Your task to perform on an android device: What's the weather going to be this weekend? Image 0: 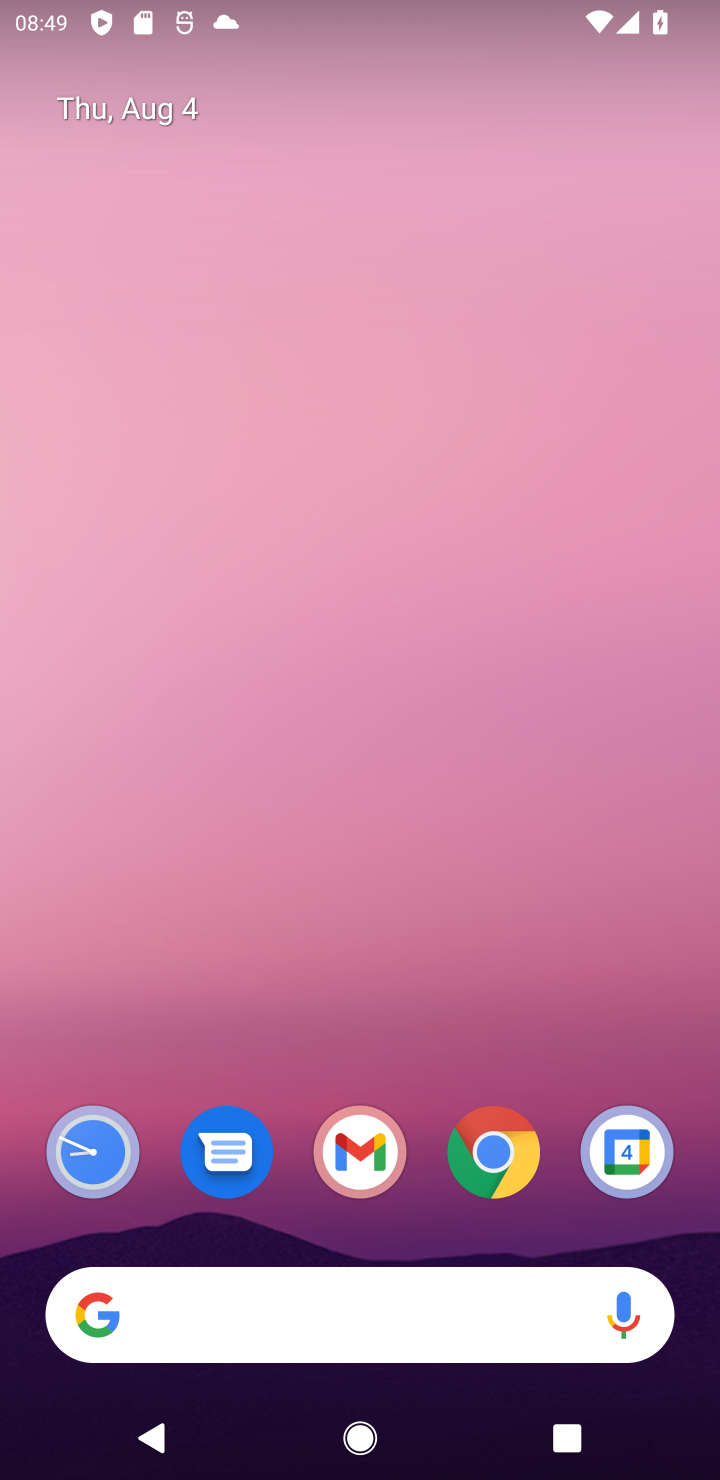
Step 0: click (288, 1305)
Your task to perform on an android device: What's the weather going to be this weekend? Image 1: 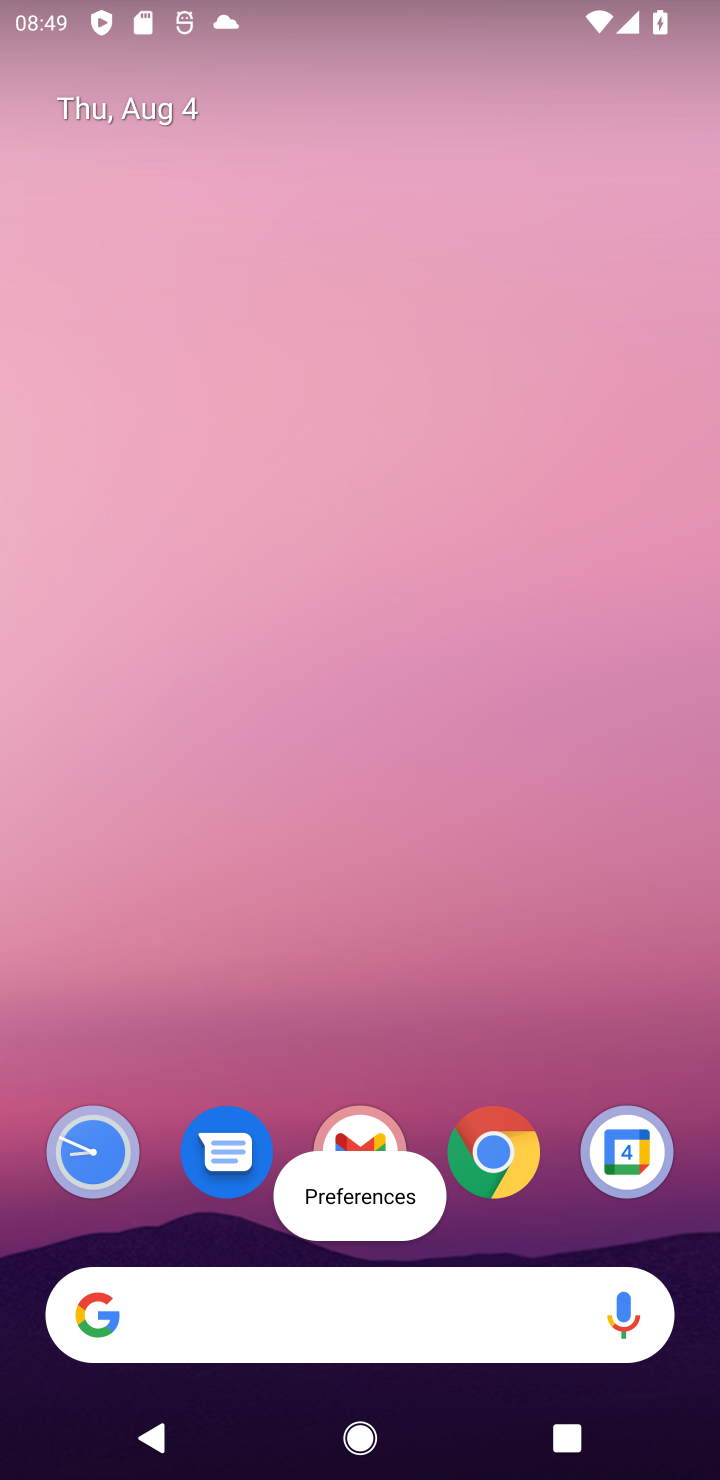
Step 1: click (219, 1295)
Your task to perform on an android device: What's the weather going to be this weekend? Image 2: 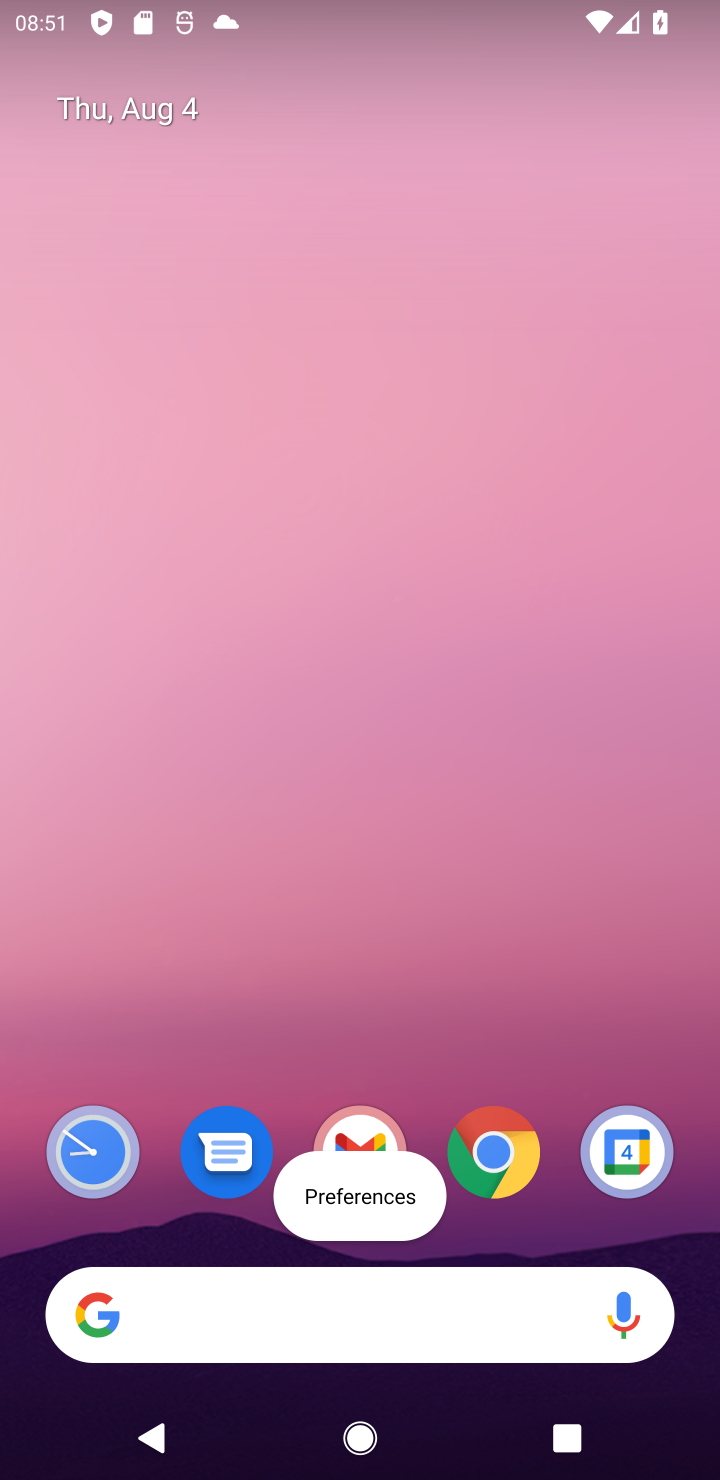
Step 2: click (211, 1289)
Your task to perform on an android device: What's the weather going to be this weekend? Image 3: 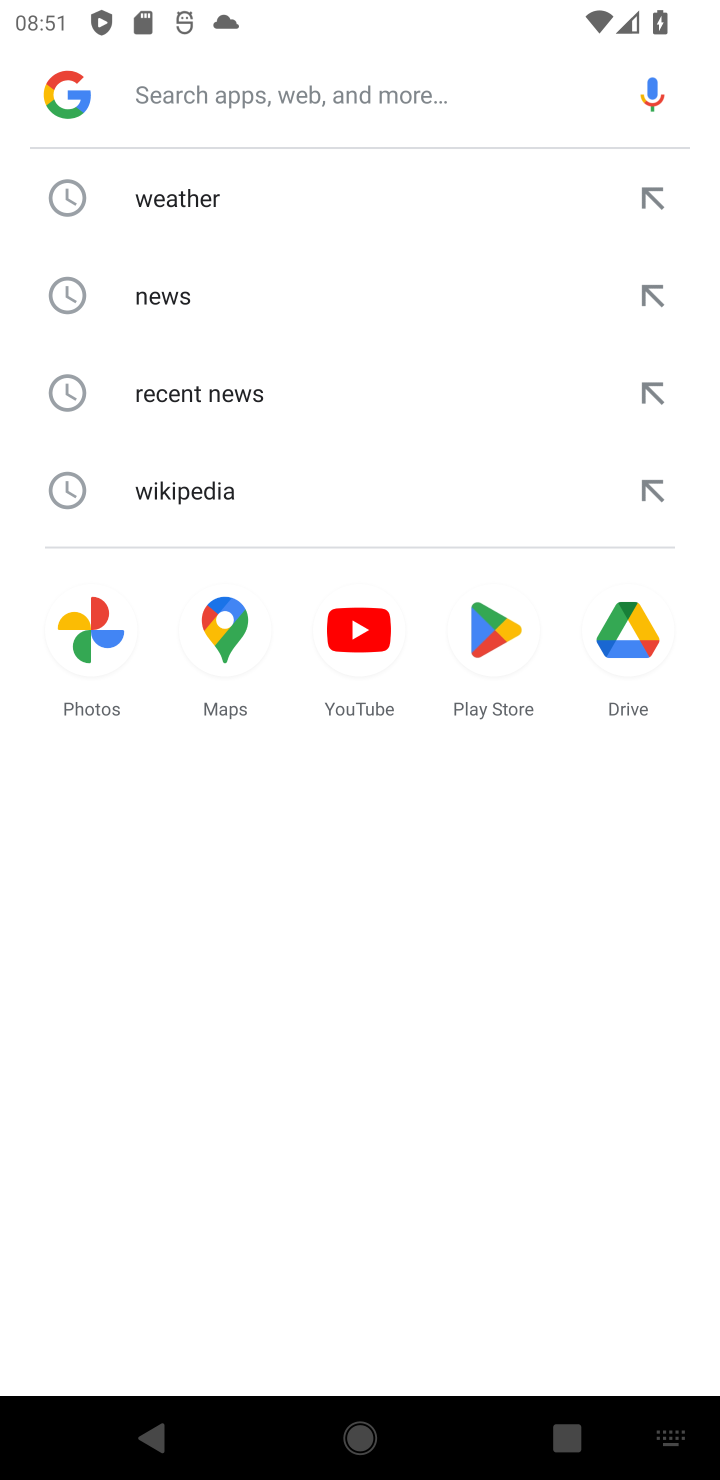
Step 3: click (217, 193)
Your task to perform on an android device: What's the weather going to be this weekend? Image 4: 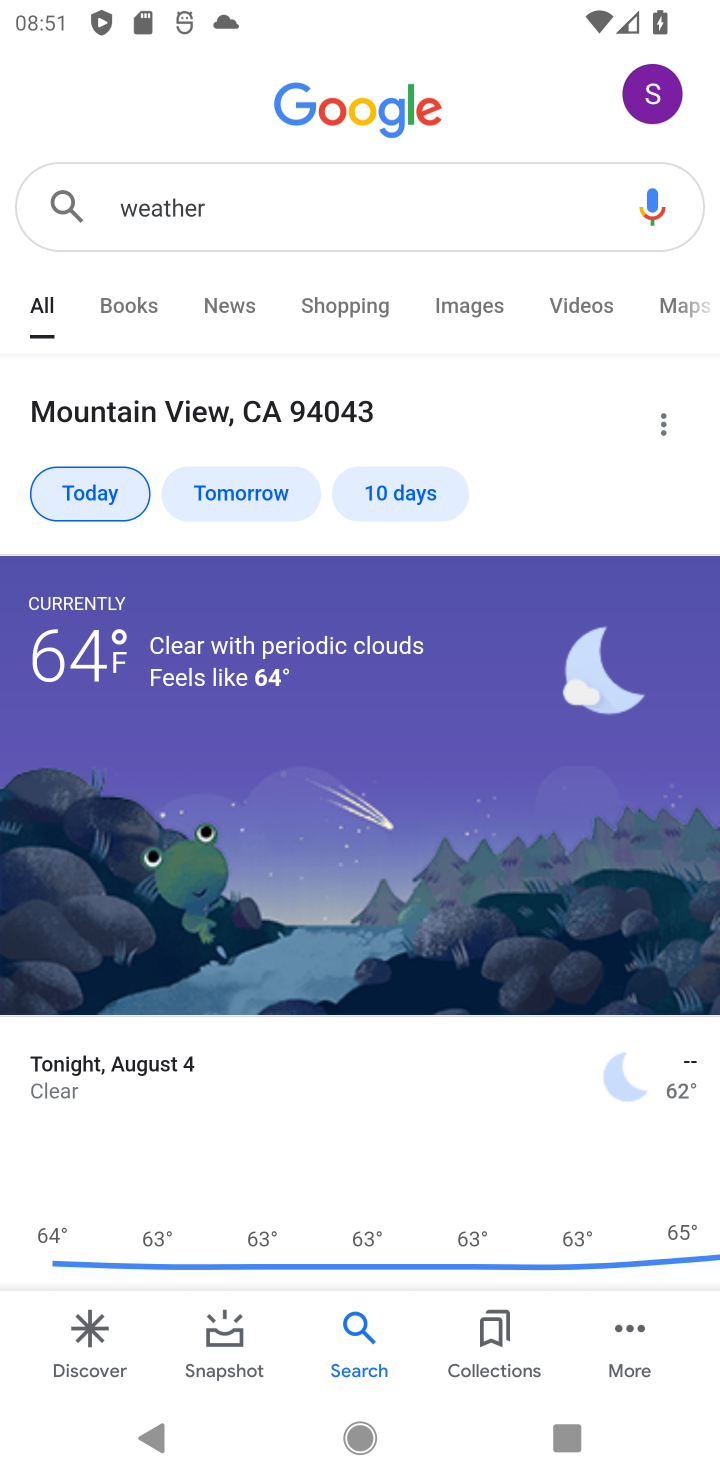
Step 4: click (367, 483)
Your task to perform on an android device: What's the weather going to be this weekend? Image 5: 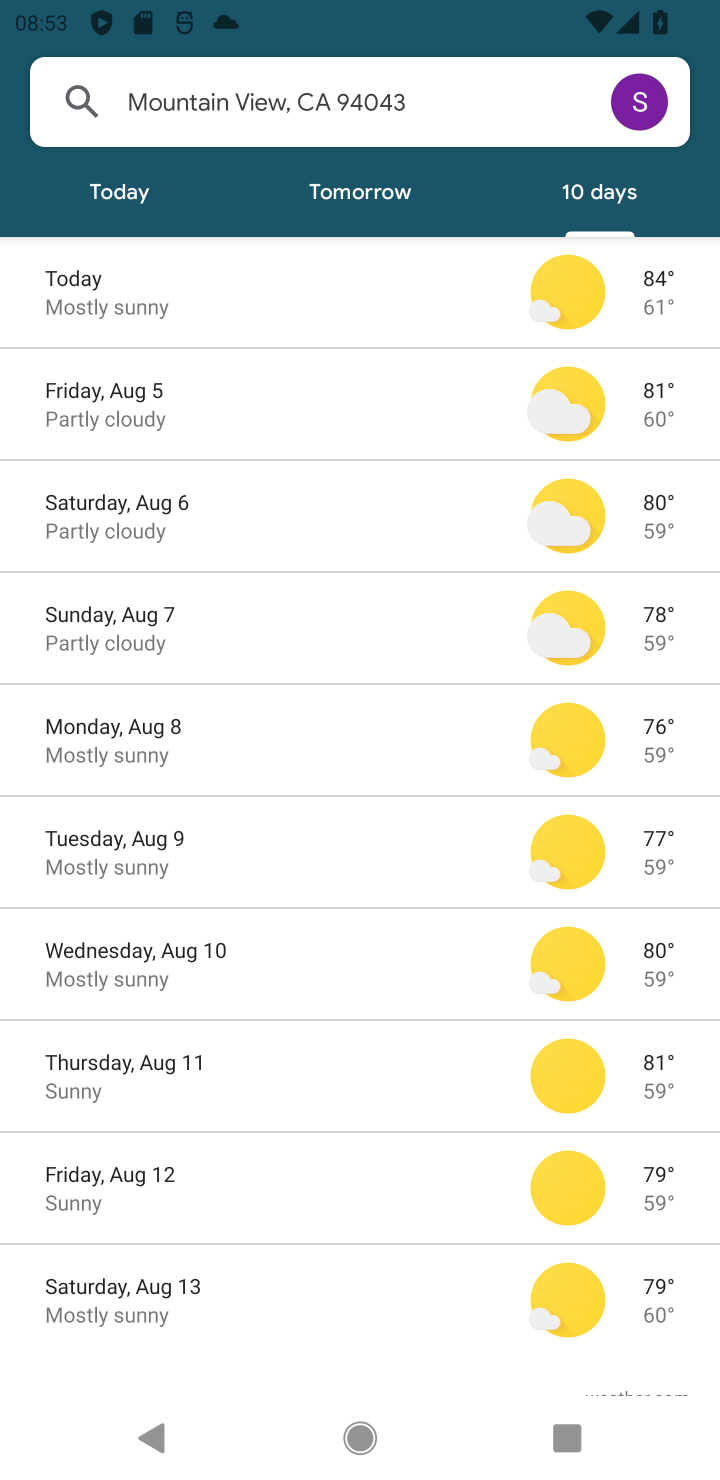
Step 5: task complete